Your task to perform on an android device: Open eBay Image 0: 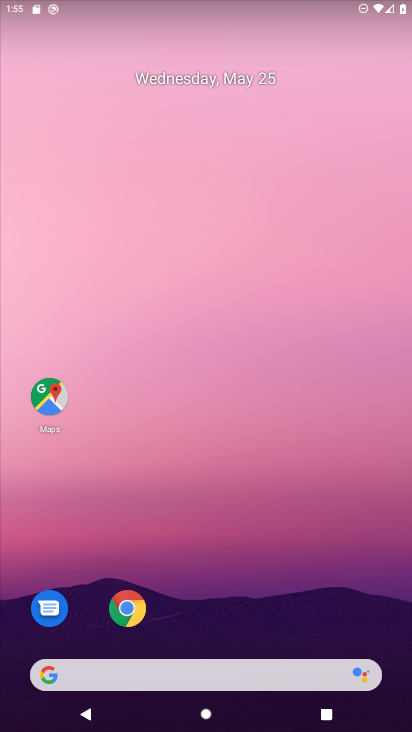
Step 0: click (133, 612)
Your task to perform on an android device: Open eBay Image 1: 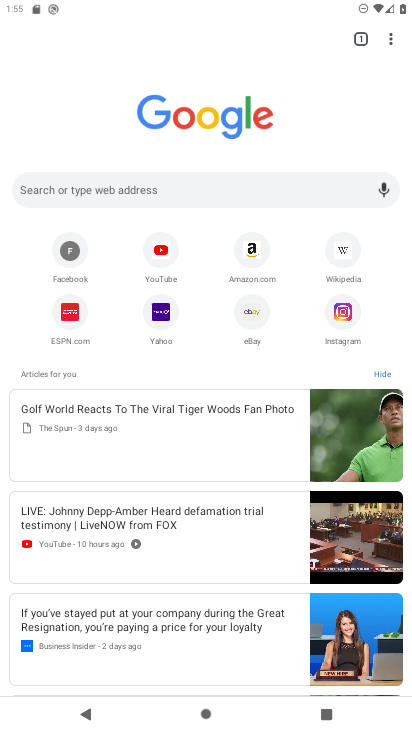
Step 1: click (256, 312)
Your task to perform on an android device: Open eBay Image 2: 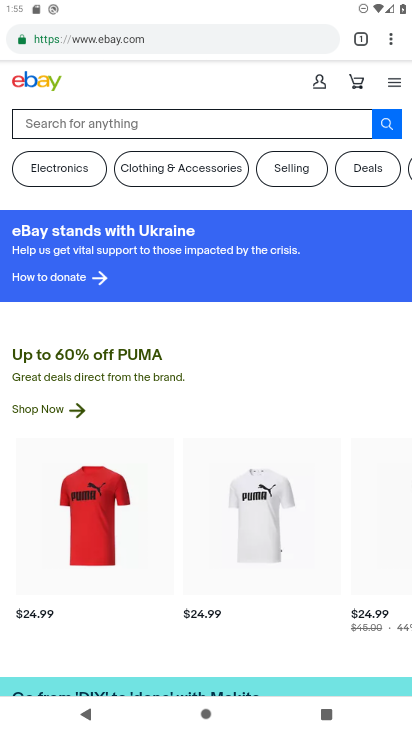
Step 2: task complete